Your task to perform on an android device: turn notification dots on Image 0: 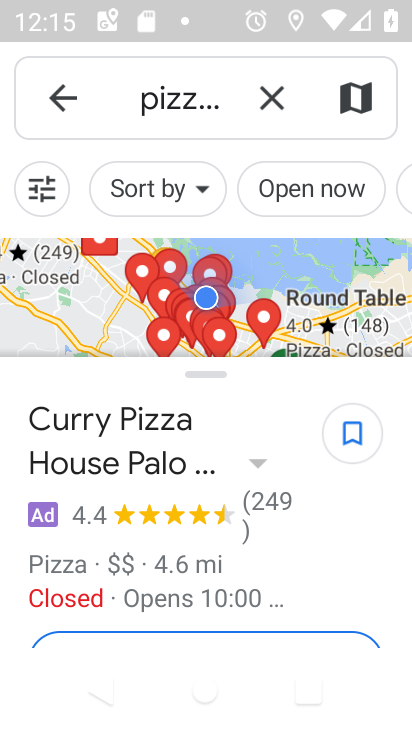
Step 0: press home button
Your task to perform on an android device: turn notification dots on Image 1: 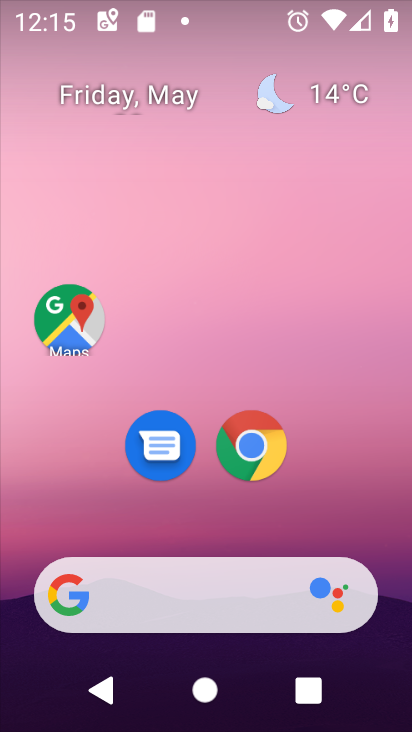
Step 1: drag from (192, 523) to (241, 181)
Your task to perform on an android device: turn notification dots on Image 2: 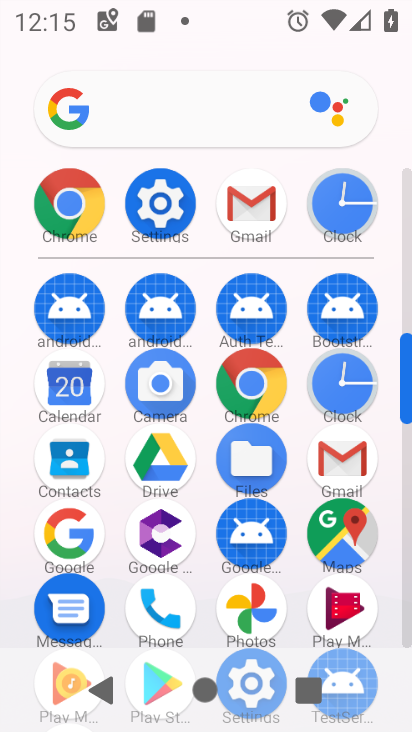
Step 2: click (131, 219)
Your task to perform on an android device: turn notification dots on Image 3: 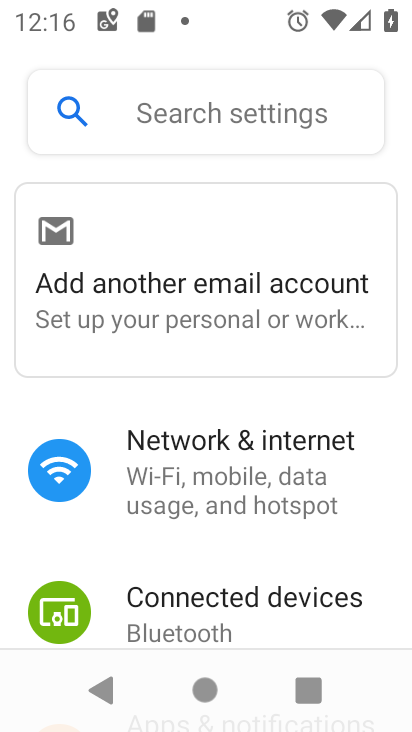
Step 3: drag from (163, 610) to (156, 293)
Your task to perform on an android device: turn notification dots on Image 4: 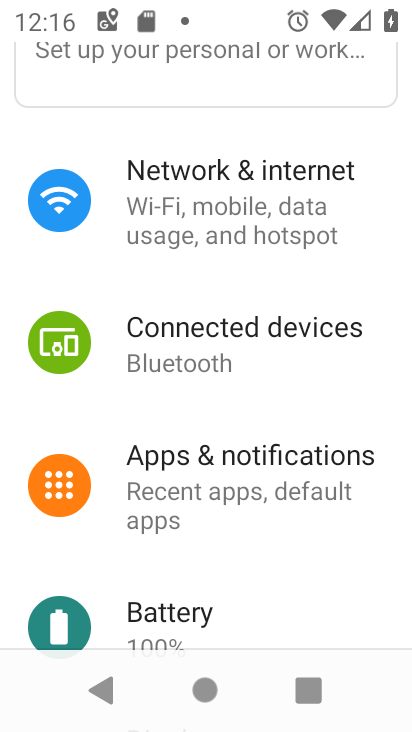
Step 4: drag from (185, 545) to (196, 291)
Your task to perform on an android device: turn notification dots on Image 5: 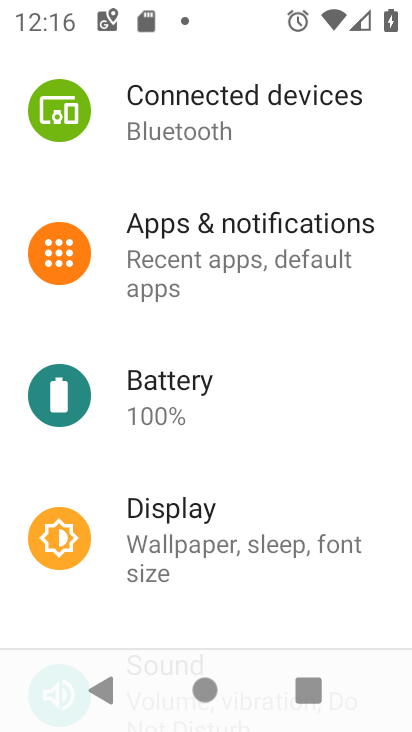
Step 5: click (201, 277)
Your task to perform on an android device: turn notification dots on Image 6: 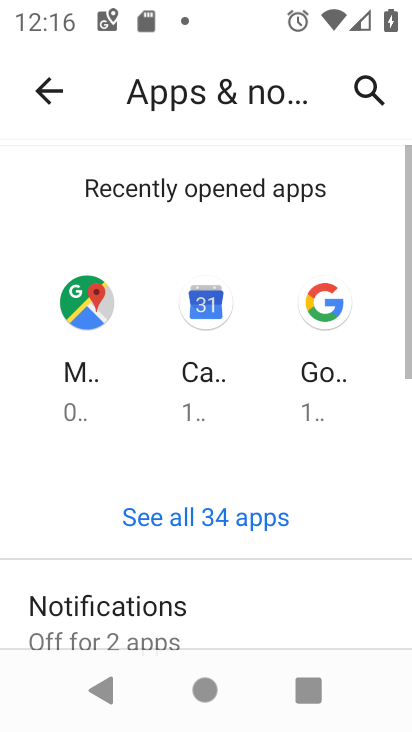
Step 6: drag from (186, 569) to (187, 211)
Your task to perform on an android device: turn notification dots on Image 7: 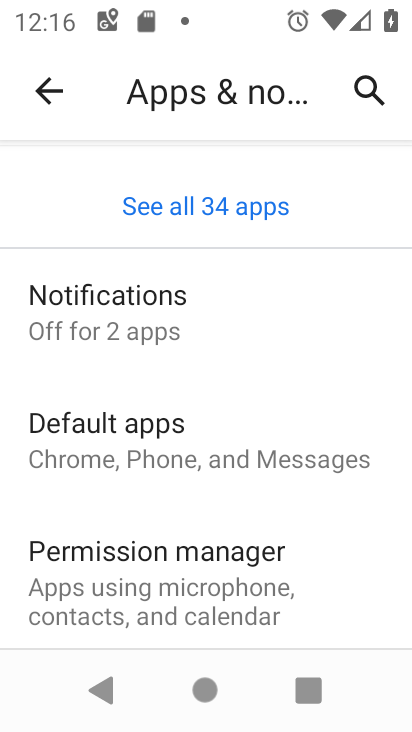
Step 7: drag from (186, 400) to (193, 231)
Your task to perform on an android device: turn notification dots on Image 8: 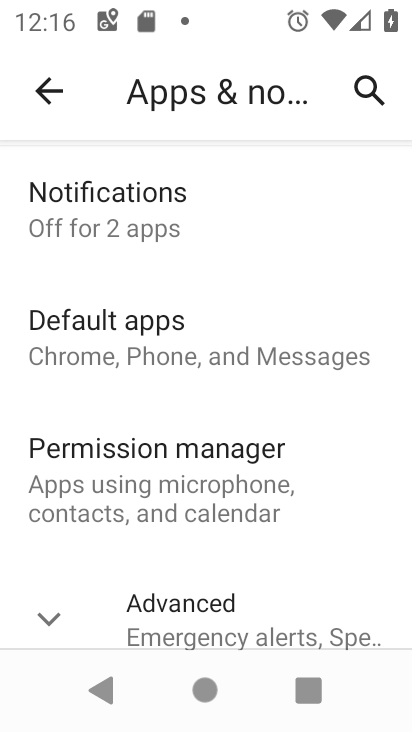
Step 8: drag from (183, 610) to (179, 352)
Your task to perform on an android device: turn notification dots on Image 9: 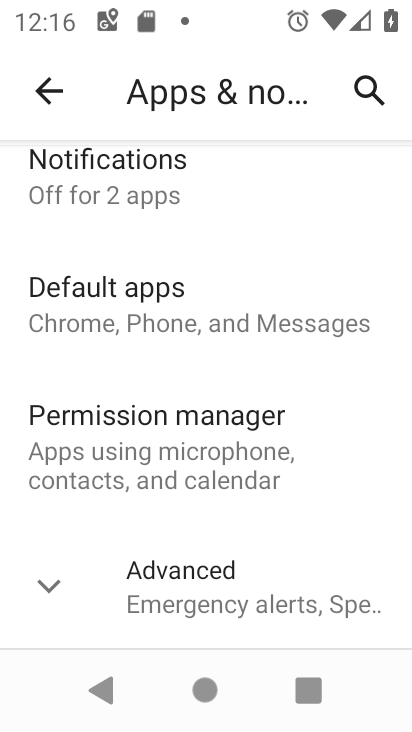
Step 9: click (167, 592)
Your task to perform on an android device: turn notification dots on Image 10: 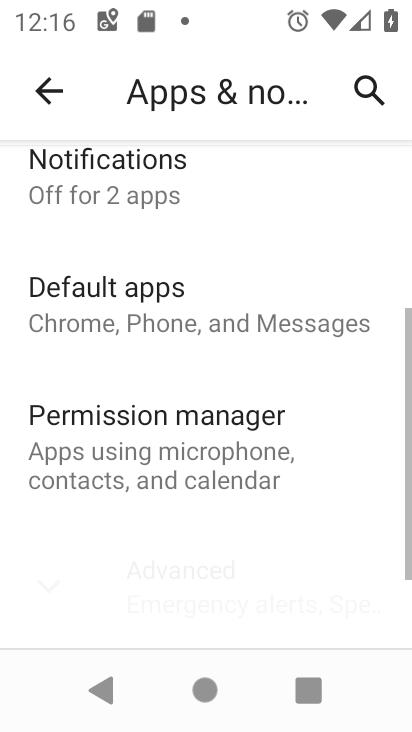
Step 10: drag from (166, 517) to (167, 297)
Your task to perform on an android device: turn notification dots on Image 11: 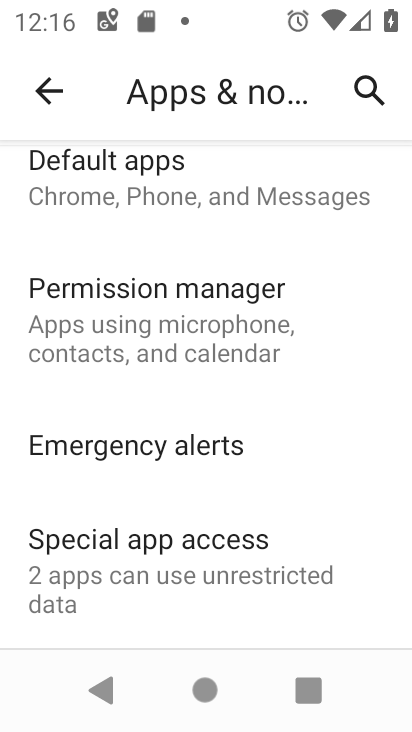
Step 11: drag from (200, 302) to (200, 669)
Your task to perform on an android device: turn notification dots on Image 12: 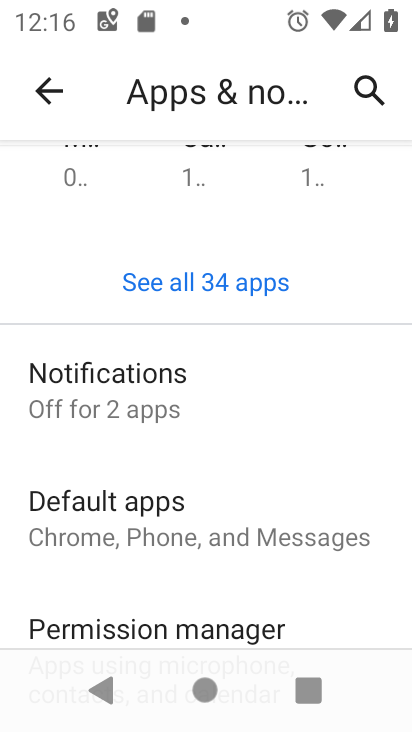
Step 12: click (185, 410)
Your task to perform on an android device: turn notification dots on Image 13: 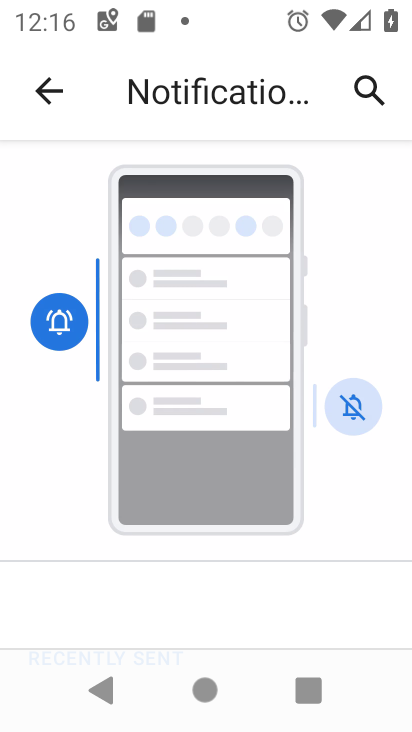
Step 13: drag from (191, 418) to (208, 179)
Your task to perform on an android device: turn notification dots on Image 14: 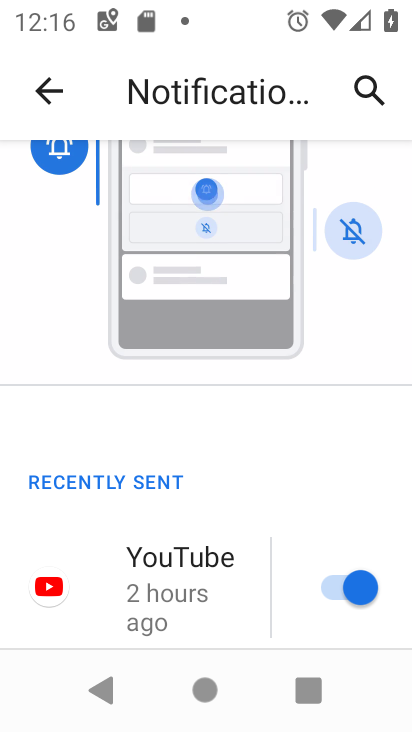
Step 14: drag from (187, 572) to (201, 157)
Your task to perform on an android device: turn notification dots on Image 15: 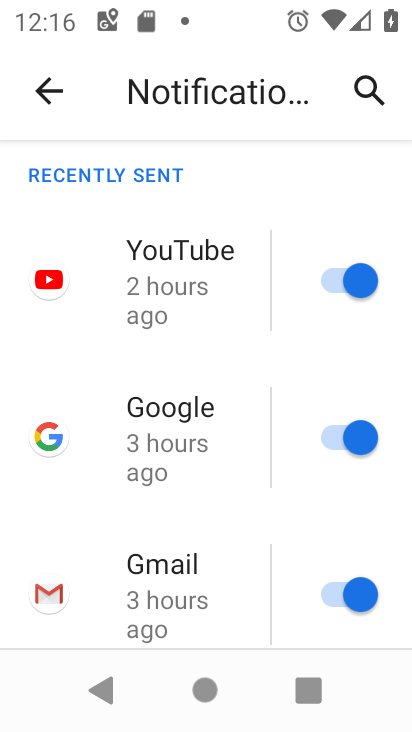
Step 15: drag from (170, 521) to (199, 184)
Your task to perform on an android device: turn notification dots on Image 16: 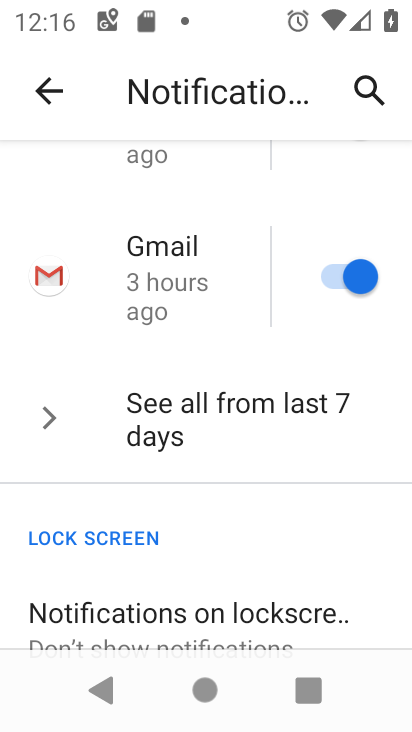
Step 16: drag from (198, 545) to (195, 234)
Your task to perform on an android device: turn notification dots on Image 17: 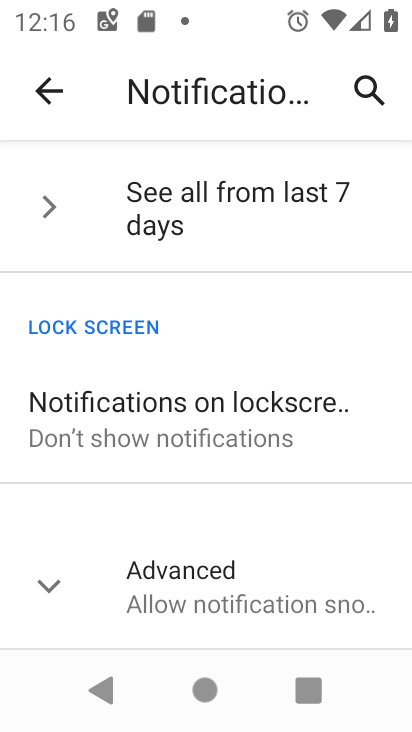
Step 17: click (196, 583)
Your task to perform on an android device: turn notification dots on Image 18: 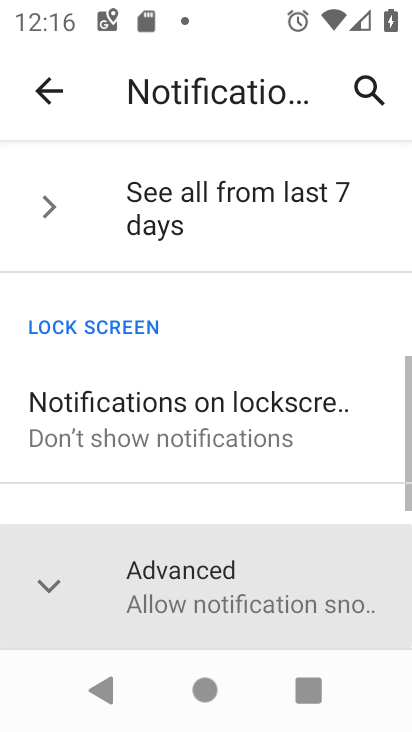
Step 18: drag from (192, 577) to (181, 235)
Your task to perform on an android device: turn notification dots on Image 19: 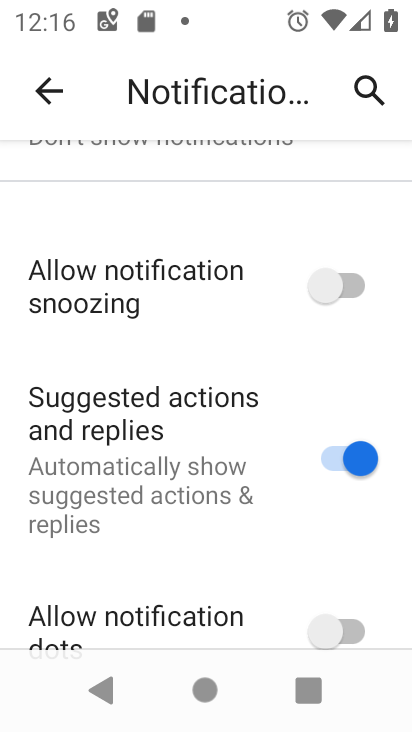
Step 19: click (229, 249)
Your task to perform on an android device: turn notification dots on Image 20: 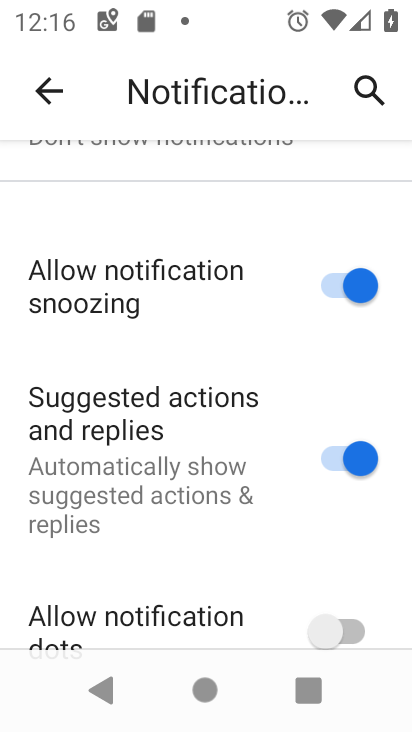
Step 20: click (337, 635)
Your task to perform on an android device: turn notification dots on Image 21: 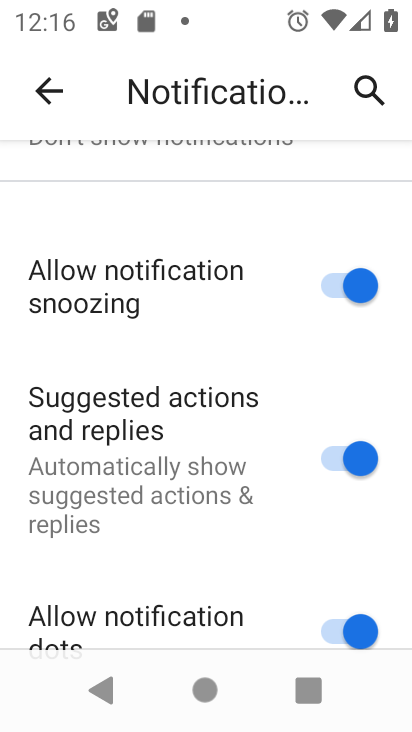
Step 21: task complete